Your task to perform on an android device: add a contact in the contacts app Image 0: 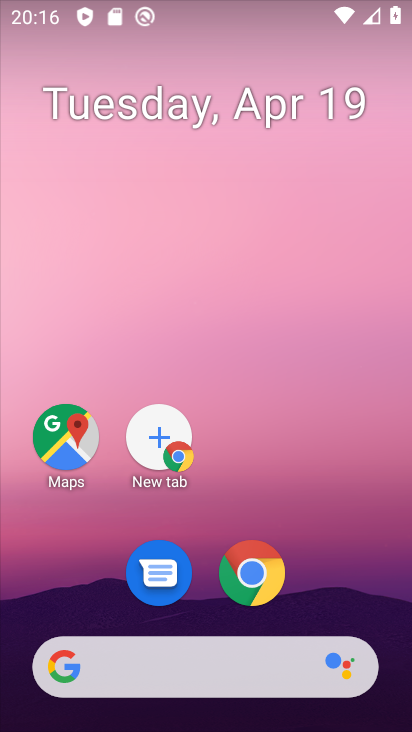
Step 0: drag from (373, 441) to (361, 175)
Your task to perform on an android device: add a contact in the contacts app Image 1: 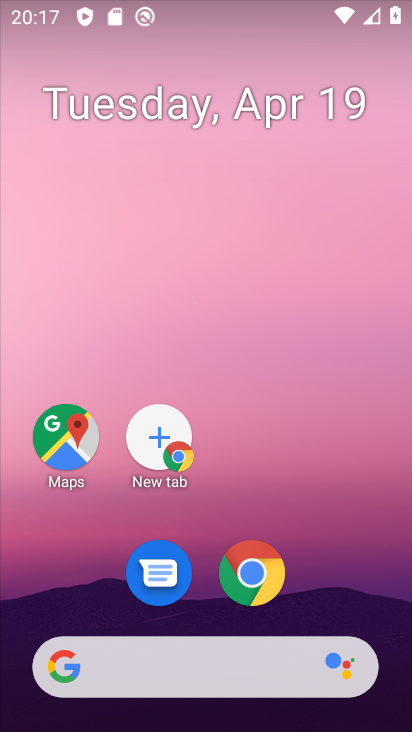
Step 1: drag from (354, 308) to (354, 90)
Your task to perform on an android device: add a contact in the contacts app Image 2: 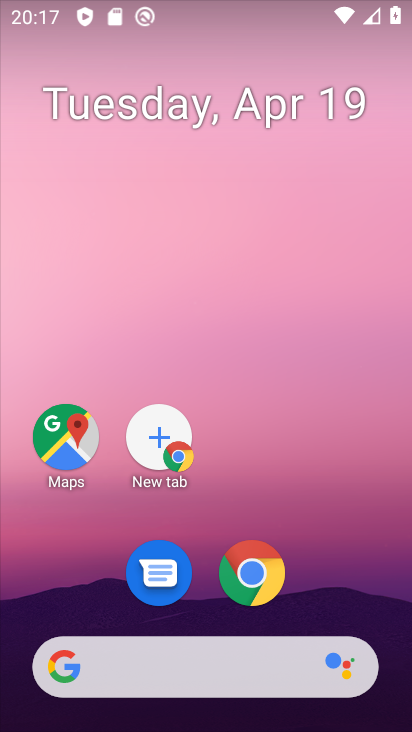
Step 2: drag from (355, 267) to (342, 84)
Your task to perform on an android device: add a contact in the contacts app Image 3: 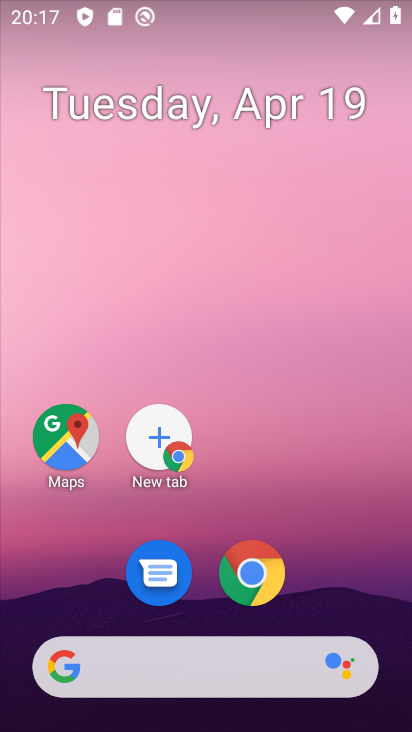
Step 3: drag from (380, 591) to (361, 95)
Your task to perform on an android device: add a contact in the contacts app Image 4: 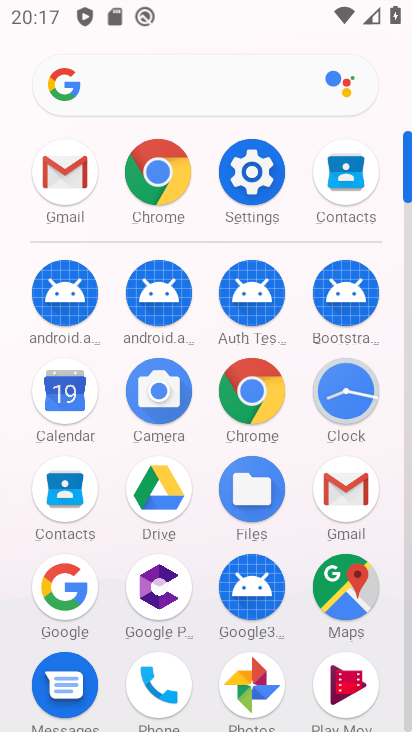
Step 4: click (47, 498)
Your task to perform on an android device: add a contact in the contacts app Image 5: 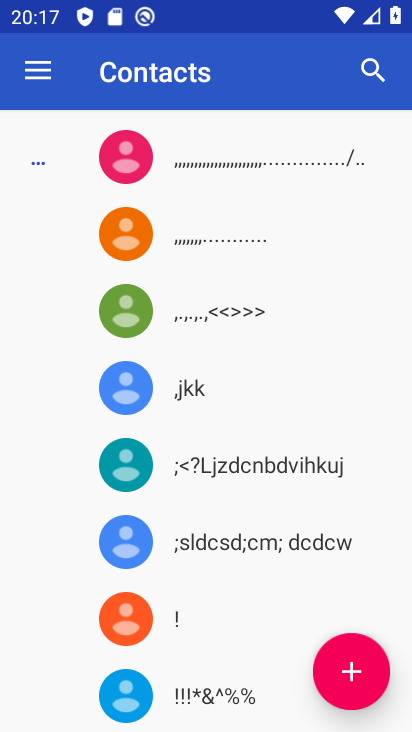
Step 5: click (334, 666)
Your task to perform on an android device: add a contact in the contacts app Image 6: 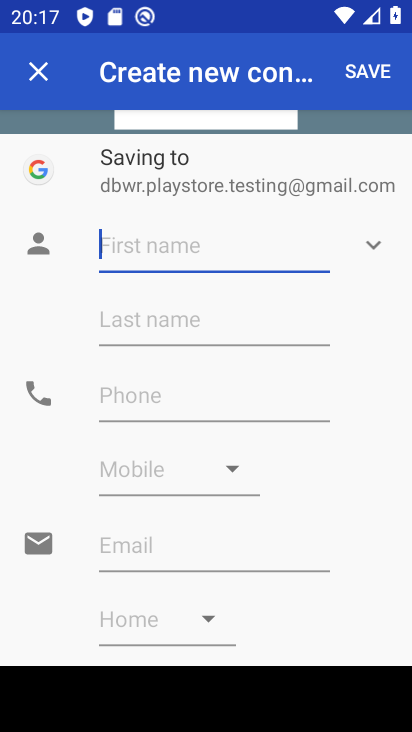
Step 6: click (190, 240)
Your task to perform on an android device: add a contact in the contacts app Image 7: 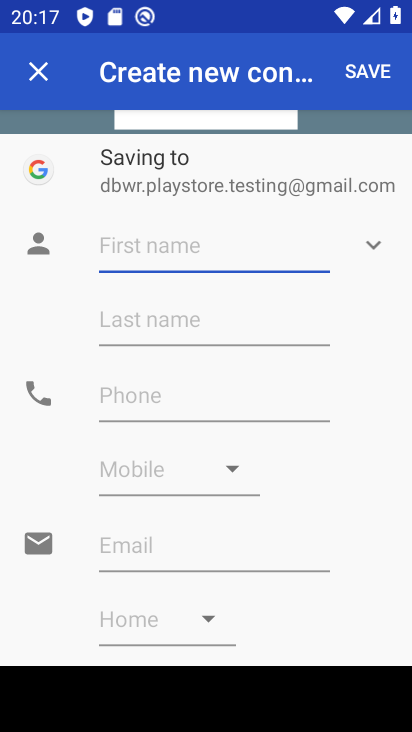
Step 7: type "gfghfgdgdg"
Your task to perform on an android device: add a contact in the contacts app Image 8: 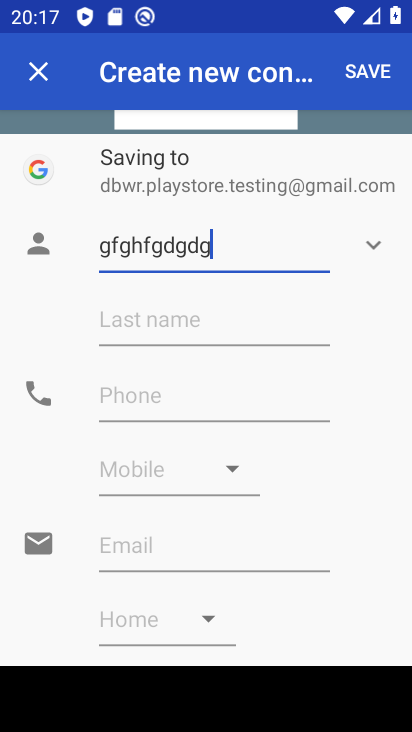
Step 8: click (184, 316)
Your task to perform on an android device: add a contact in the contacts app Image 9: 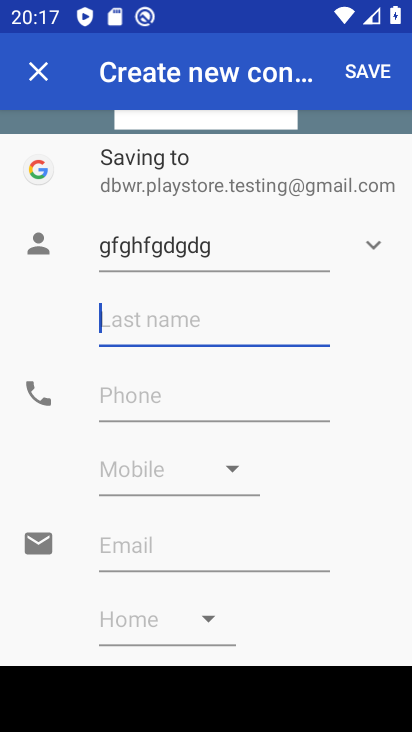
Step 9: type "fgfghghfffghf"
Your task to perform on an android device: add a contact in the contacts app Image 10: 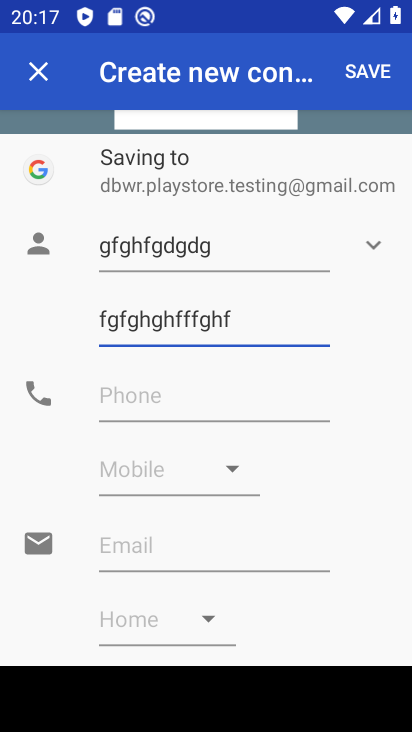
Step 10: click (160, 398)
Your task to perform on an android device: add a contact in the contacts app Image 11: 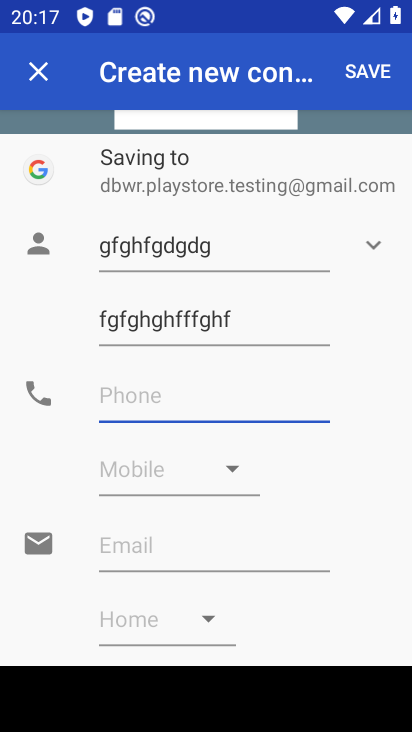
Step 11: type "44874467476"
Your task to perform on an android device: add a contact in the contacts app Image 12: 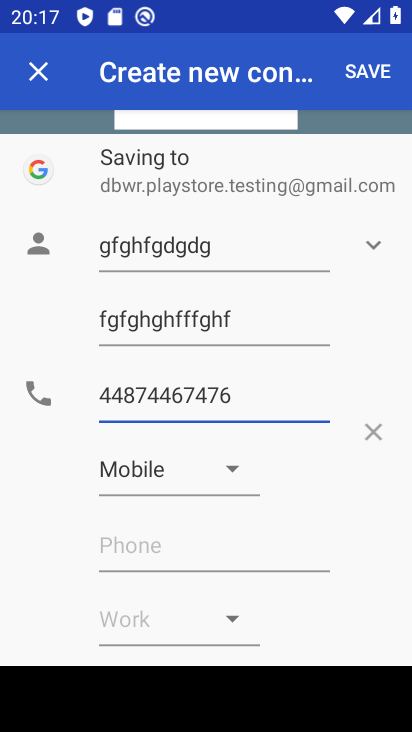
Step 12: click (351, 70)
Your task to perform on an android device: add a contact in the contacts app Image 13: 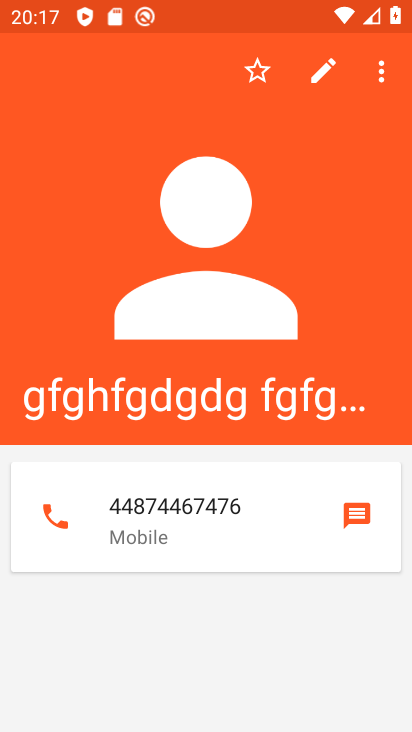
Step 13: task complete